Your task to perform on an android device: open the mobile data screen to see how much data has been used Image 0: 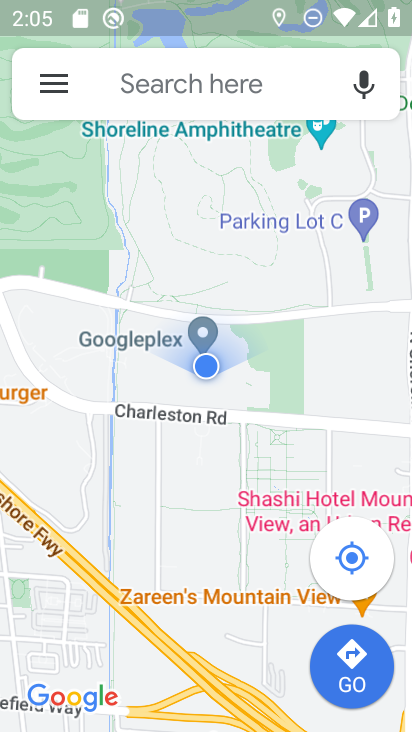
Step 0: press home button
Your task to perform on an android device: open the mobile data screen to see how much data has been used Image 1: 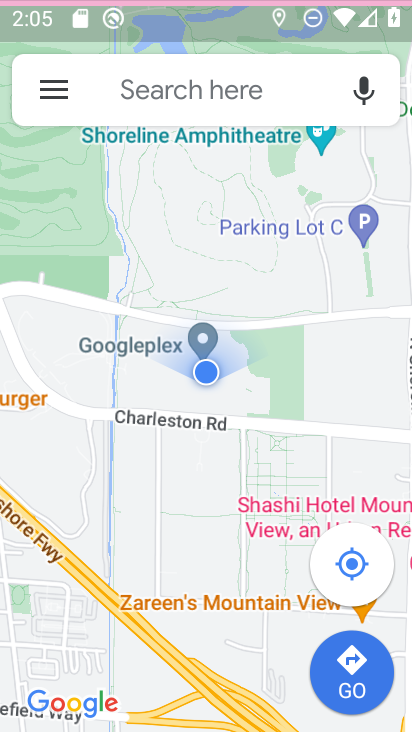
Step 1: press home button
Your task to perform on an android device: open the mobile data screen to see how much data has been used Image 2: 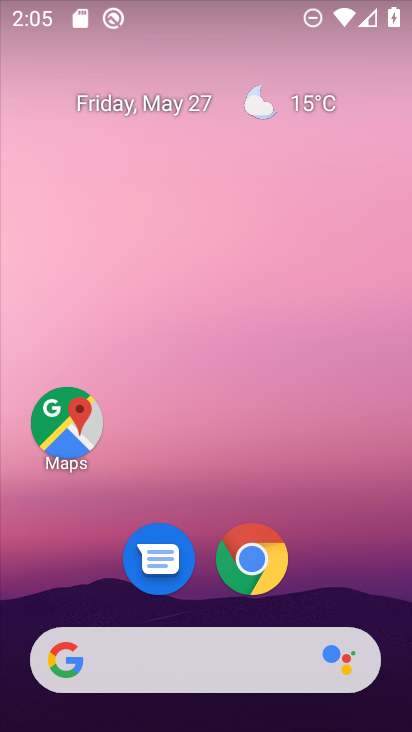
Step 2: drag from (266, 675) to (304, 105)
Your task to perform on an android device: open the mobile data screen to see how much data has been used Image 3: 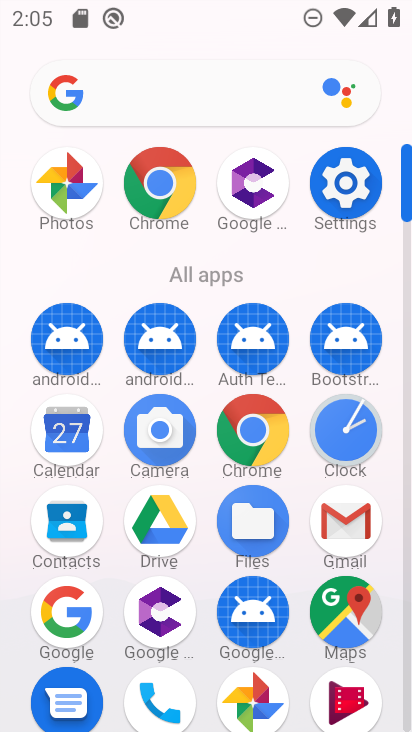
Step 3: click (351, 192)
Your task to perform on an android device: open the mobile data screen to see how much data has been used Image 4: 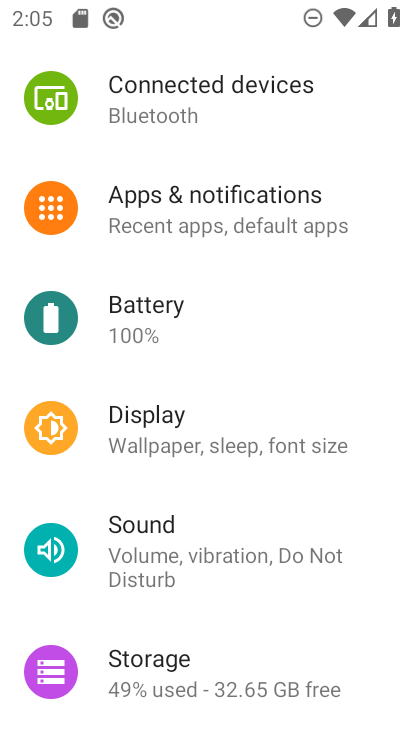
Step 4: drag from (212, 170) to (275, 723)
Your task to perform on an android device: open the mobile data screen to see how much data has been used Image 5: 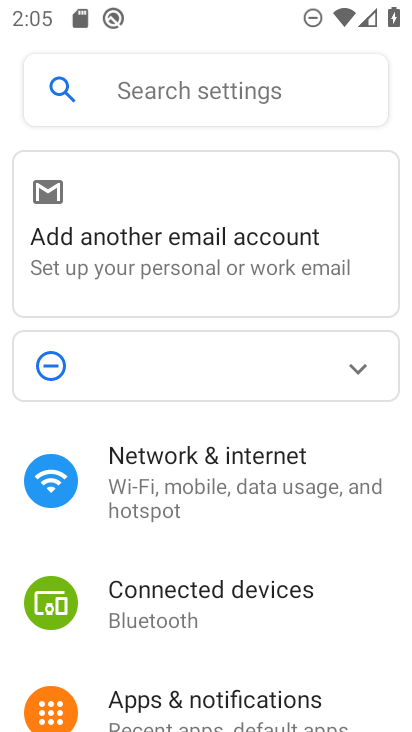
Step 5: click (186, 491)
Your task to perform on an android device: open the mobile data screen to see how much data has been used Image 6: 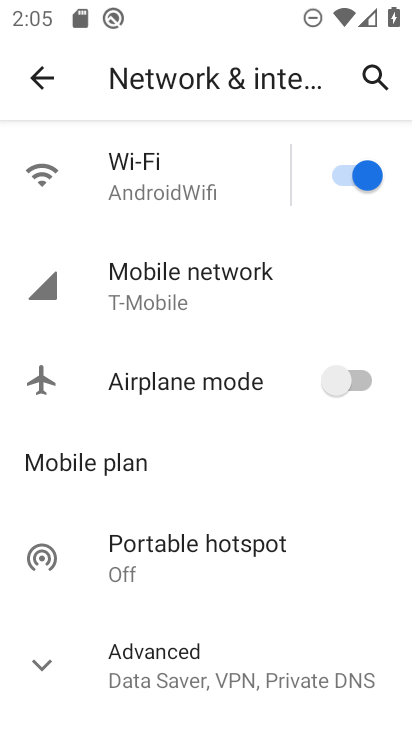
Step 6: click (221, 269)
Your task to perform on an android device: open the mobile data screen to see how much data has been used Image 7: 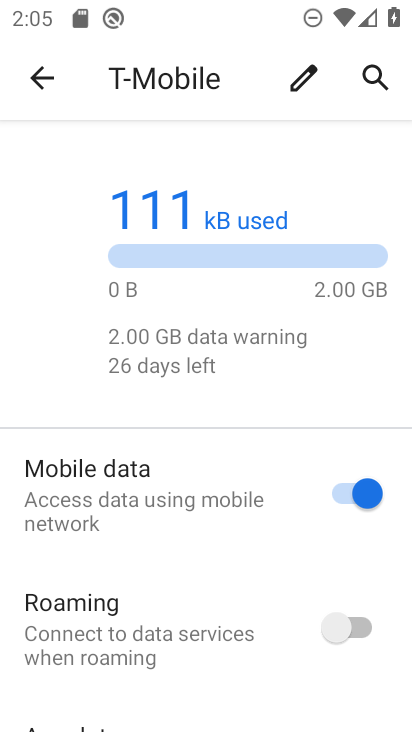
Step 7: task complete